Your task to perform on an android device: View the shopping cart on amazon. Add logitech g903 to the cart on amazon, then select checkout. Image 0: 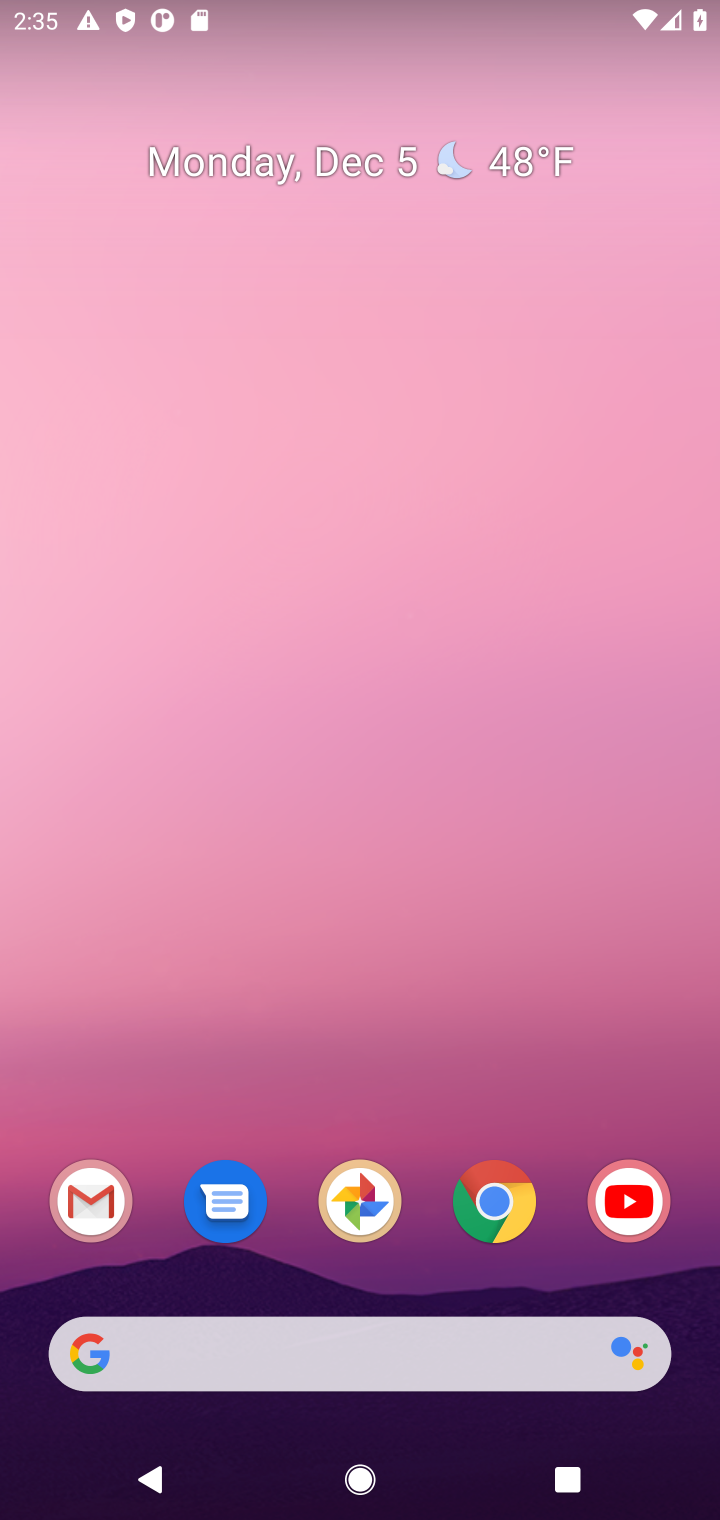
Step 0: click (492, 1198)
Your task to perform on an android device: View the shopping cart on amazon. Add logitech g903 to the cart on amazon, then select checkout. Image 1: 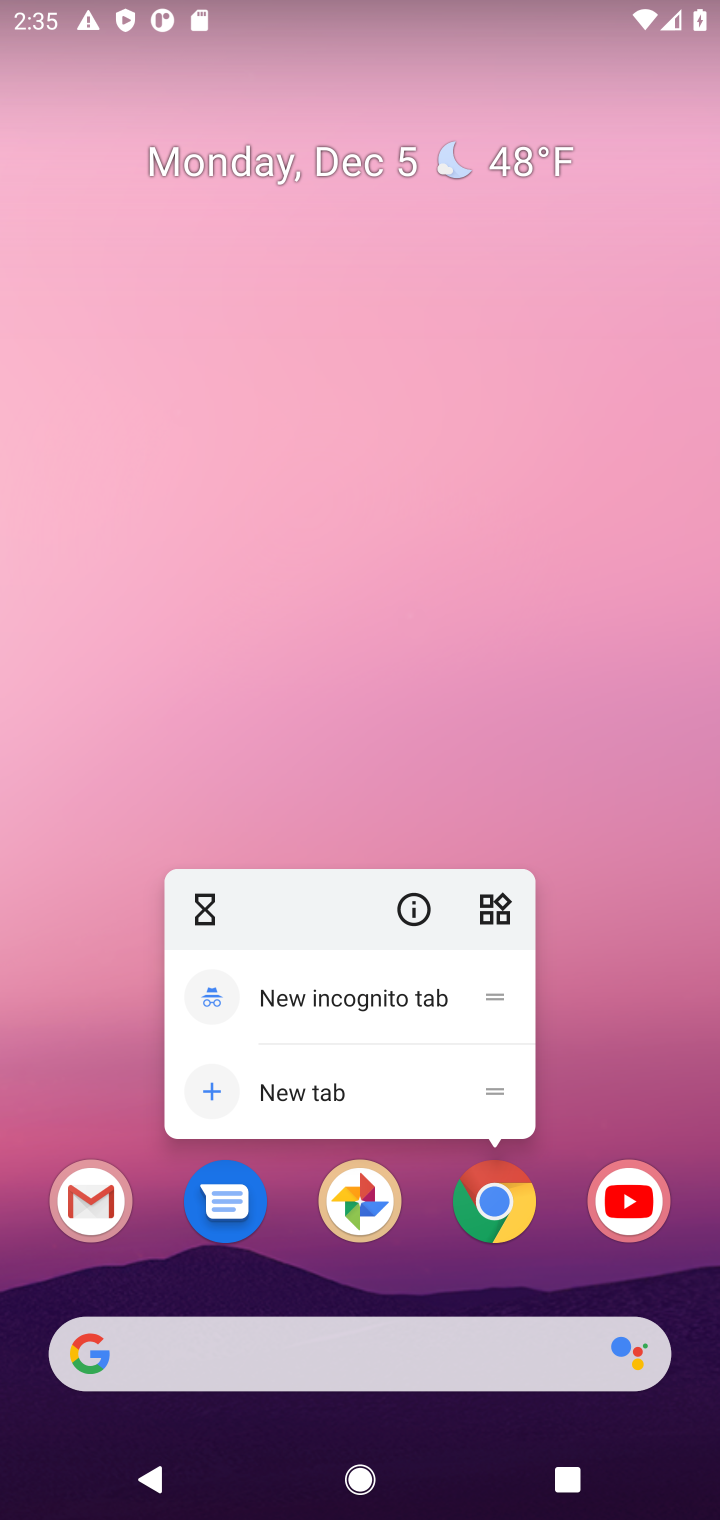
Step 1: click (482, 1218)
Your task to perform on an android device: View the shopping cart on amazon. Add logitech g903 to the cart on amazon, then select checkout. Image 2: 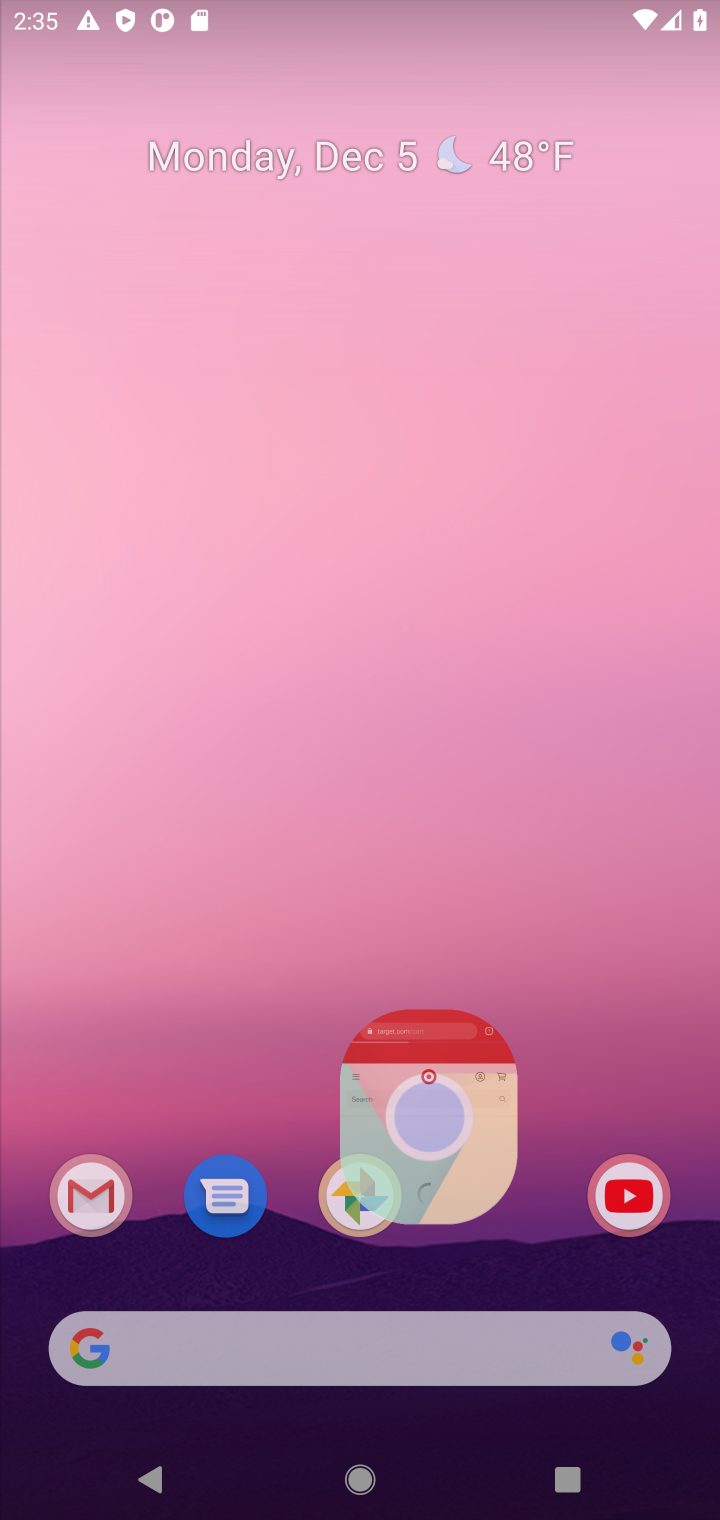
Step 2: click (482, 1218)
Your task to perform on an android device: View the shopping cart on amazon. Add logitech g903 to the cart on amazon, then select checkout. Image 3: 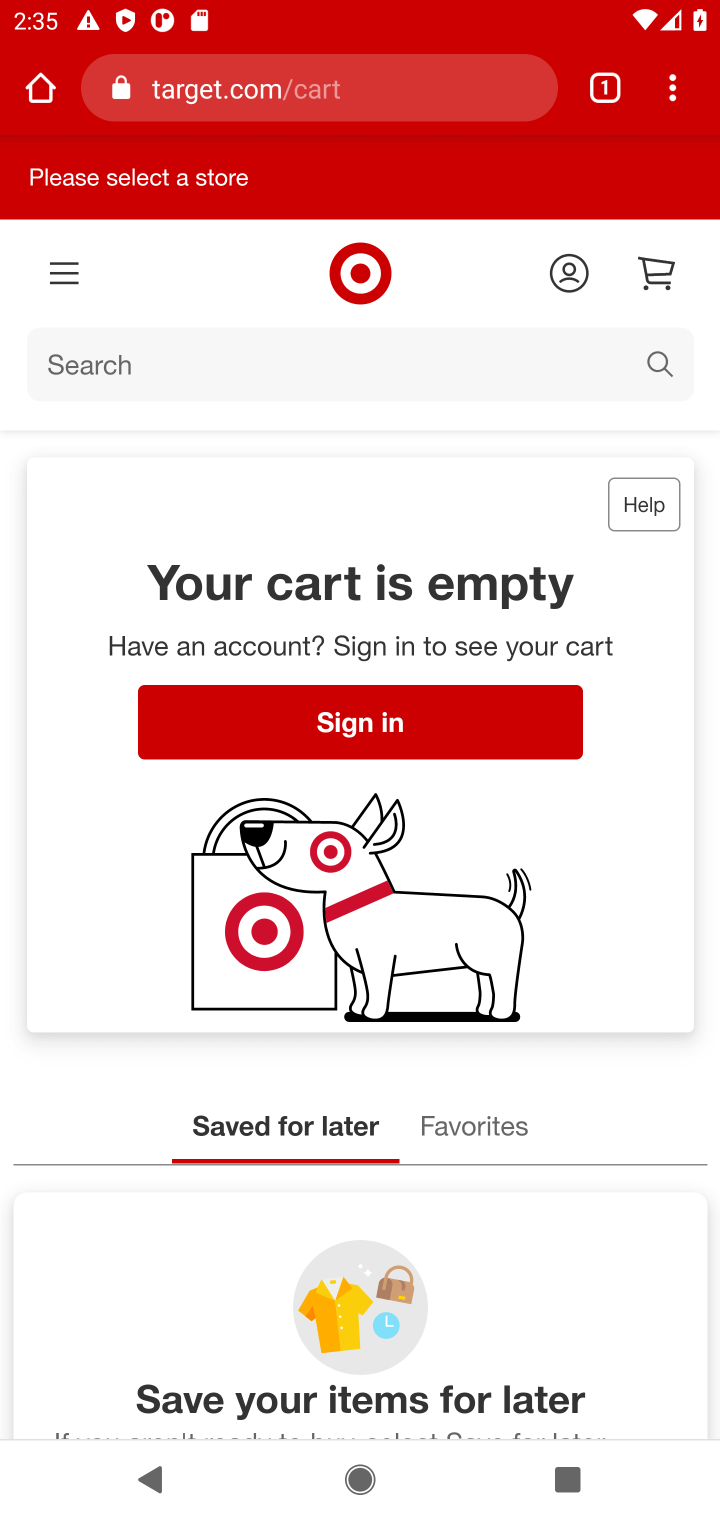
Step 3: click (342, 81)
Your task to perform on an android device: View the shopping cart on amazon. Add logitech g903 to the cart on amazon, then select checkout. Image 4: 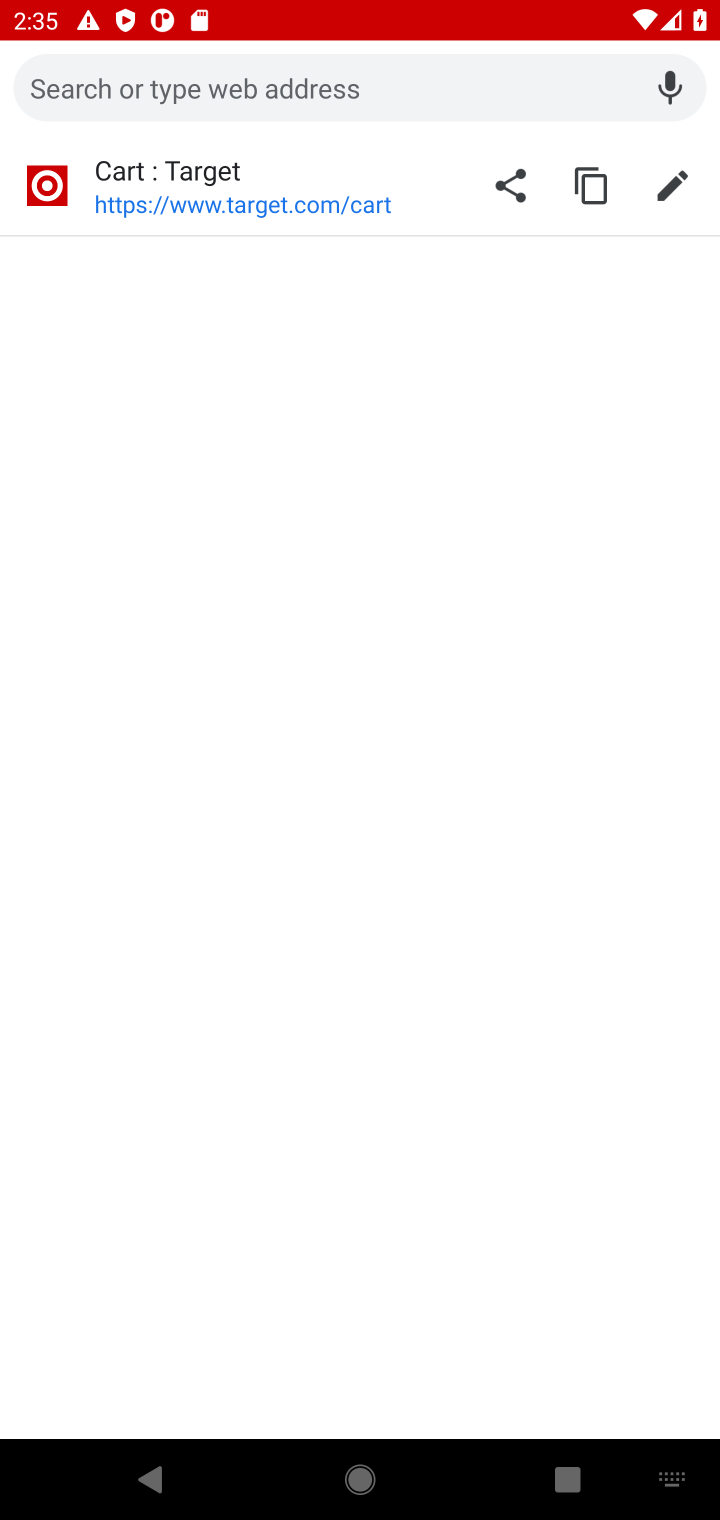
Step 4: type "amazon"
Your task to perform on an android device: View the shopping cart on amazon. Add logitech g903 to the cart on amazon, then select checkout. Image 5: 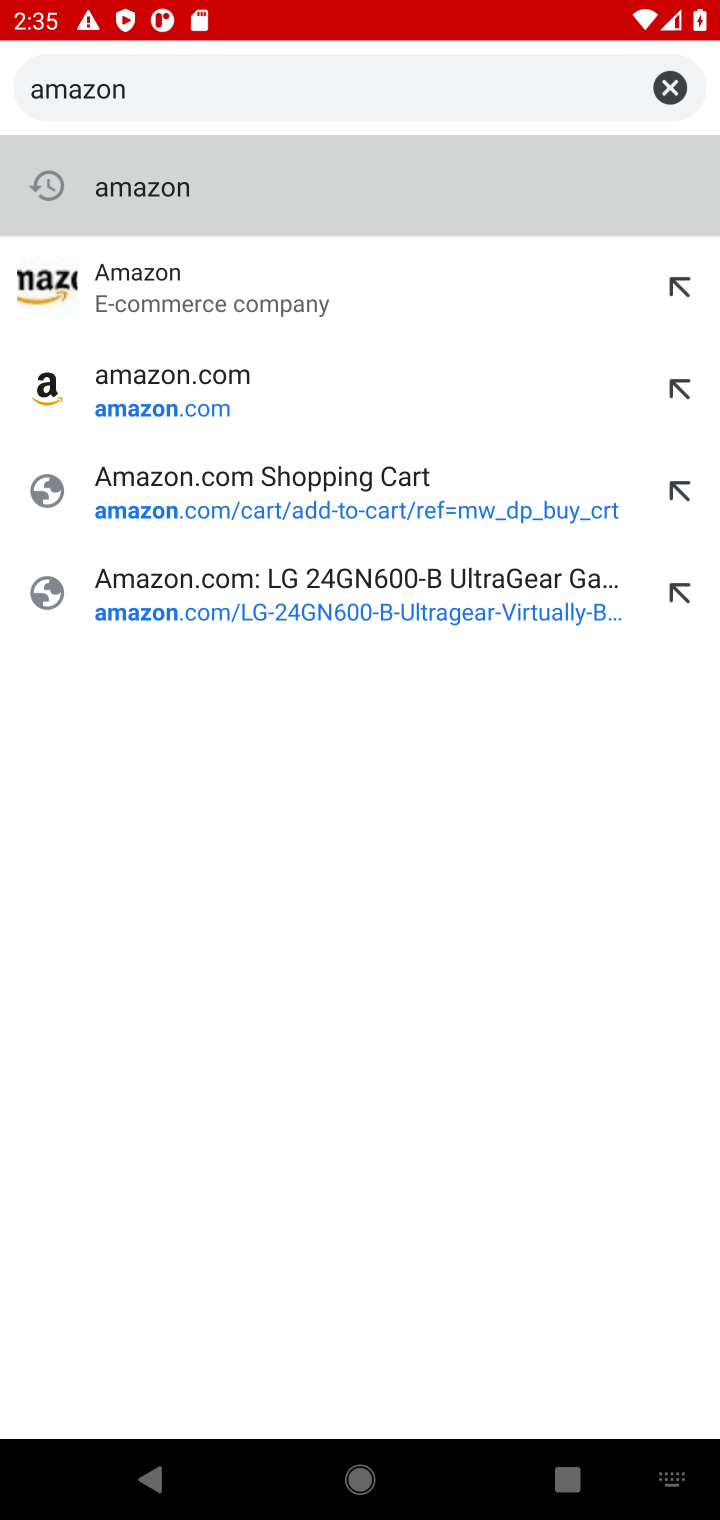
Step 5: click (151, 279)
Your task to perform on an android device: View the shopping cart on amazon. Add logitech g903 to the cart on amazon, then select checkout. Image 6: 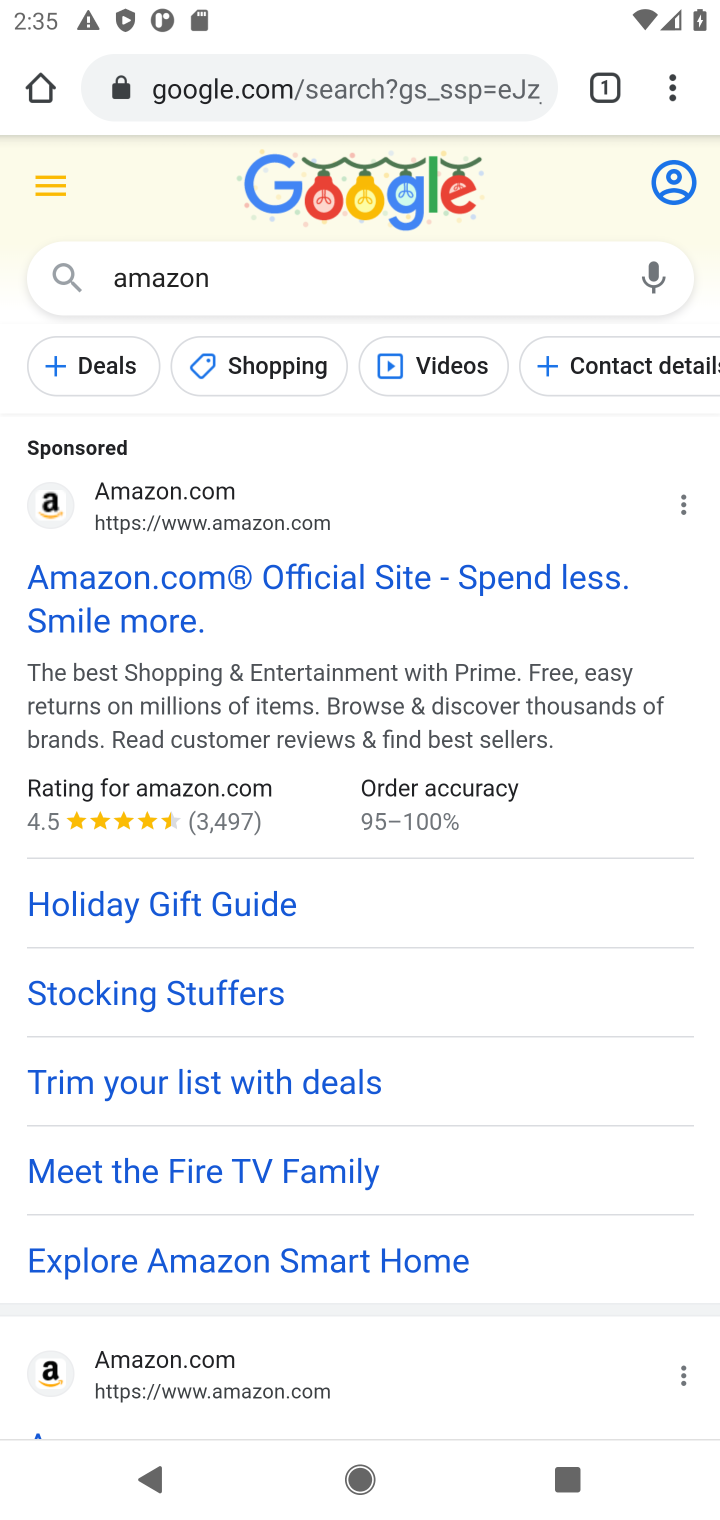
Step 6: click (243, 573)
Your task to perform on an android device: View the shopping cart on amazon. Add logitech g903 to the cart on amazon, then select checkout. Image 7: 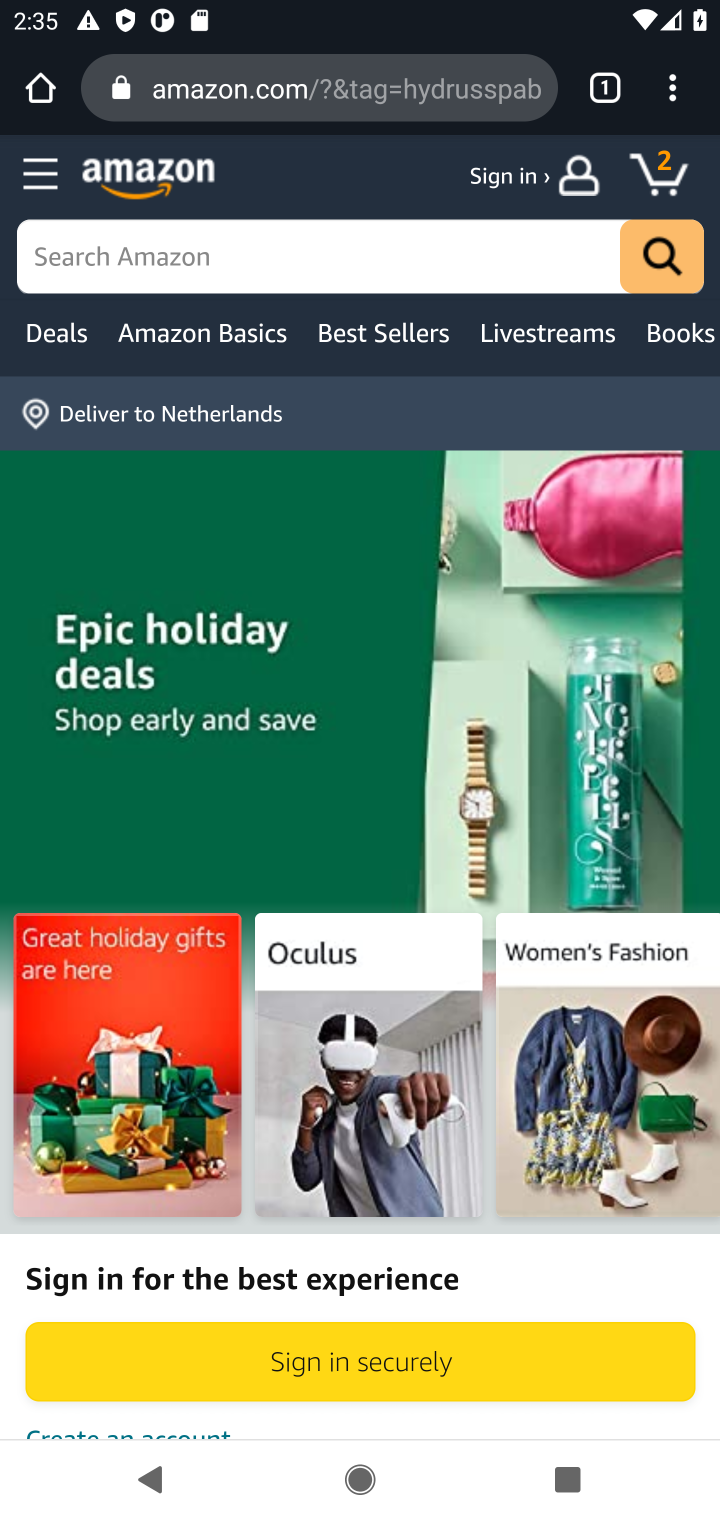
Step 7: click (518, 259)
Your task to perform on an android device: View the shopping cart on amazon. Add logitech g903 to the cart on amazon, then select checkout. Image 8: 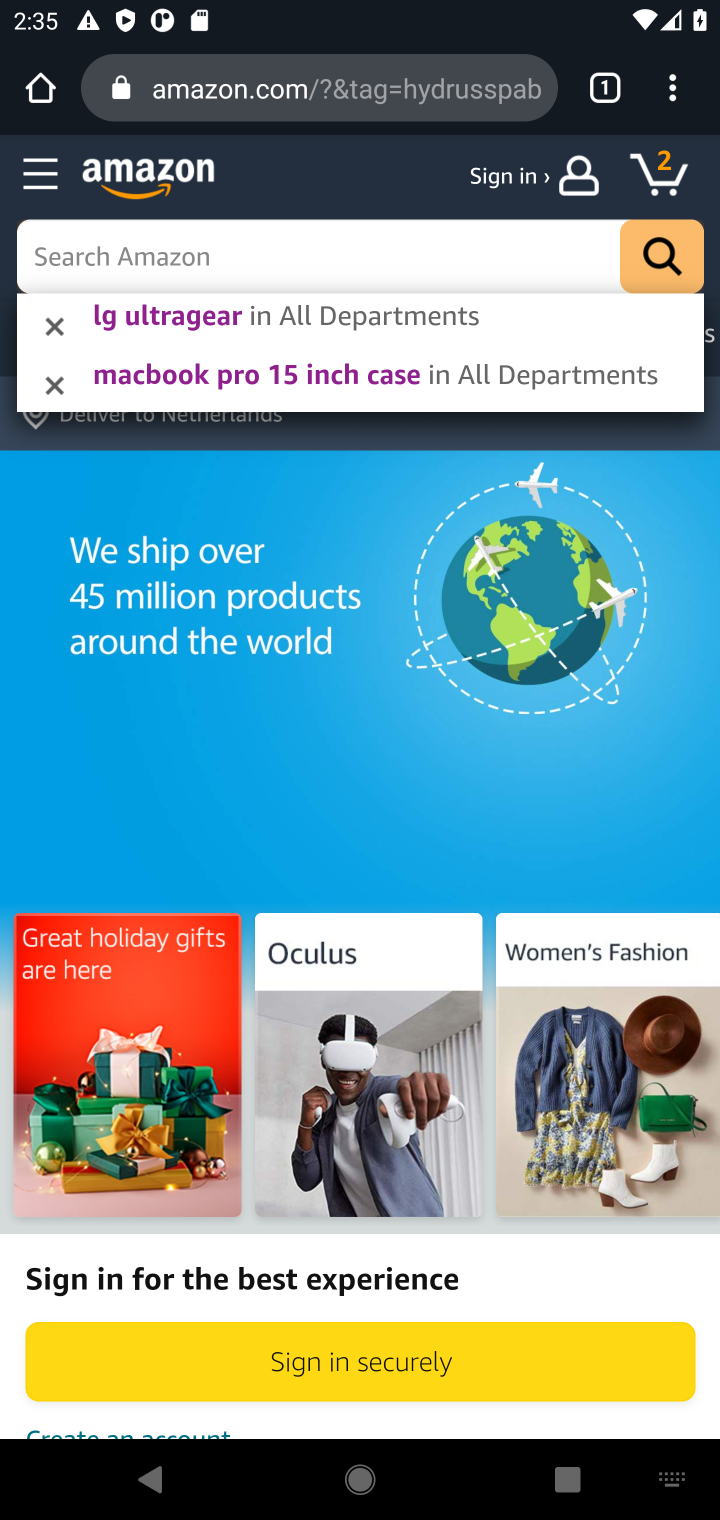
Step 8: type "logitech g903"
Your task to perform on an android device: View the shopping cart on amazon. Add logitech g903 to the cart on amazon, then select checkout. Image 9: 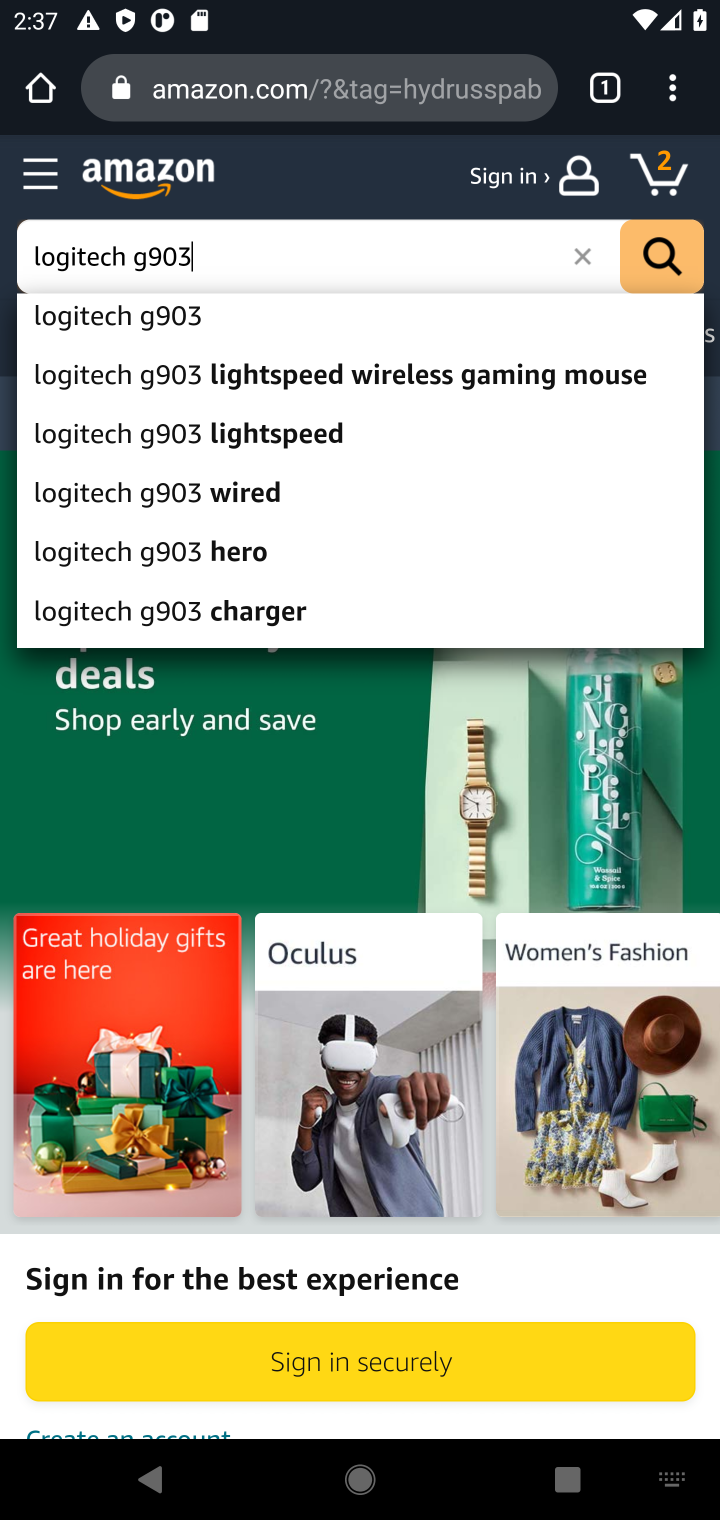
Step 9: click (171, 325)
Your task to perform on an android device: View the shopping cart on amazon. Add logitech g903 to the cart on amazon, then select checkout. Image 10: 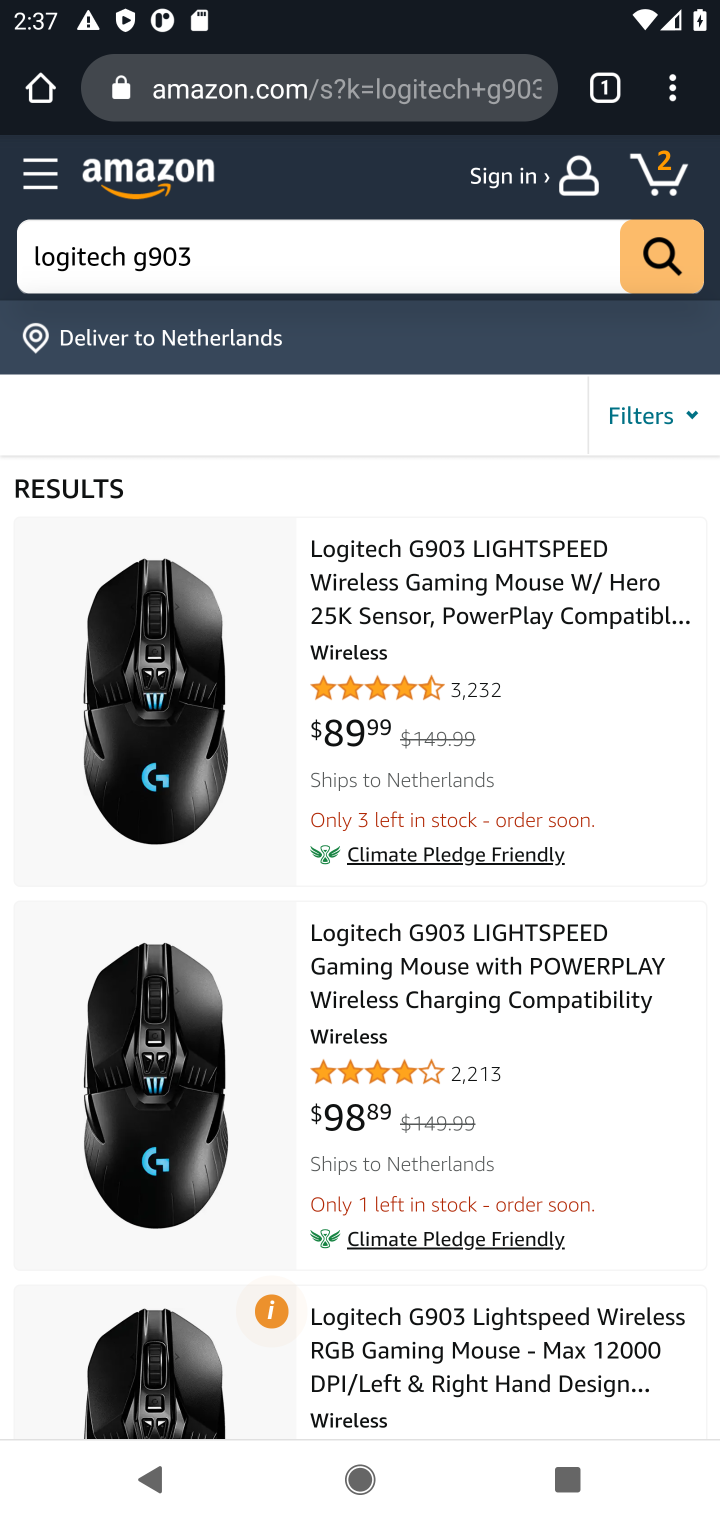
Step 10: click (148, 613)
Your task to perform on an android device: View the shopping cart on amazon. Add logitech g903 to the cart on amazon, then select checkout. Image 11: 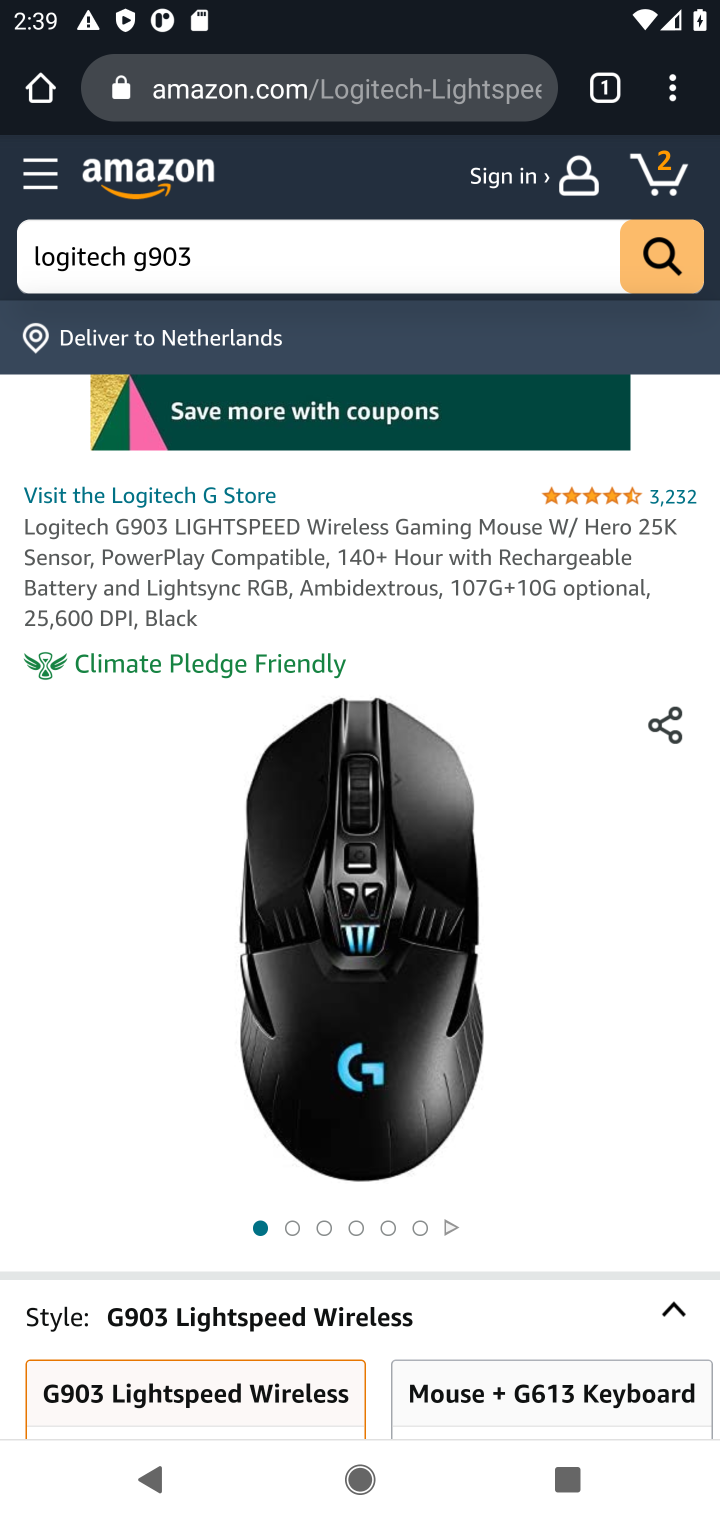
Step 11: drag from (478, 1254) to (377, 429)
Your task to perform on an android device: View the shopping cart on amazon. Add logitech g903 to the cart on amazon, then select checkout. Image 12: 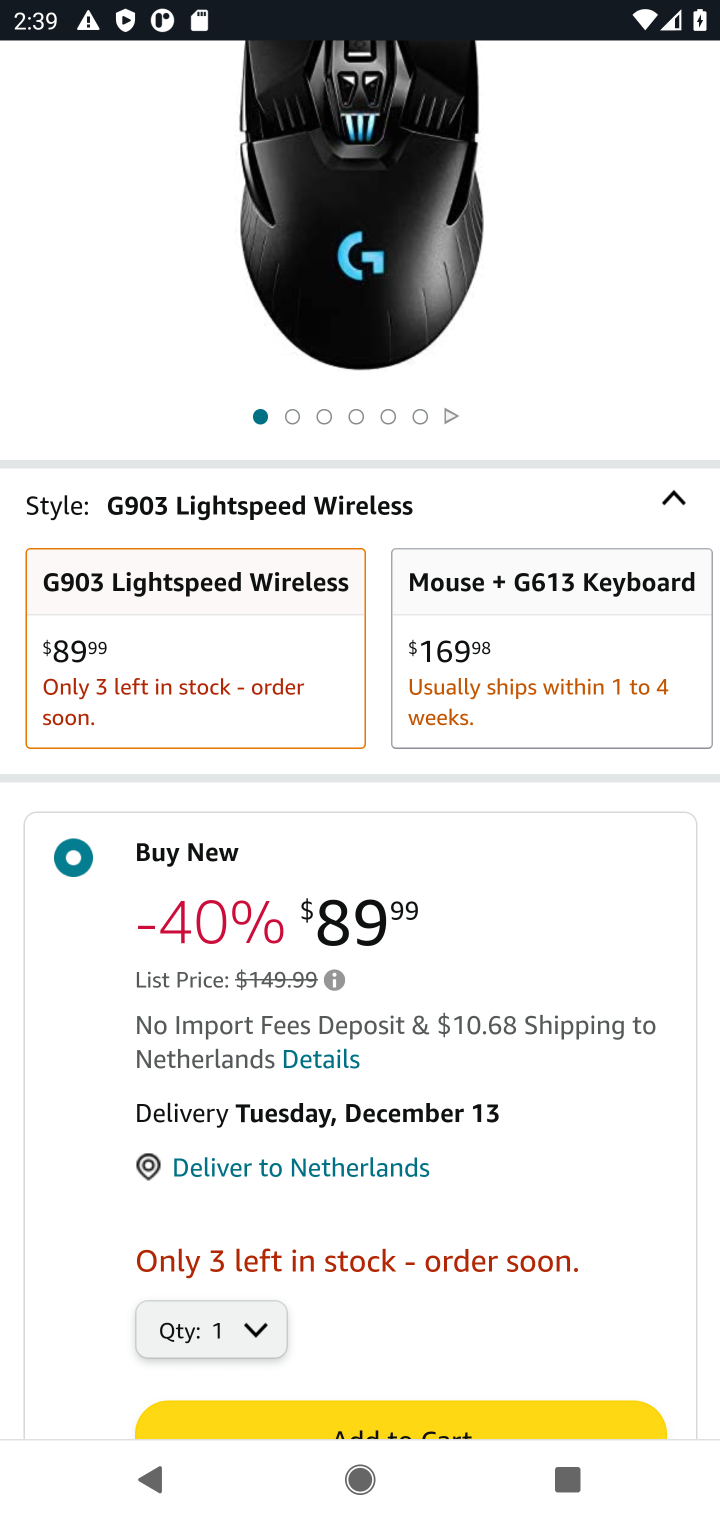
Step 12: drag from (479, 1320) to (433, 798)
Your task to perform on an android device: View the shopping cart on amazon. Add logitech g903 to the cart on amazon, then select checkout. Image 13: 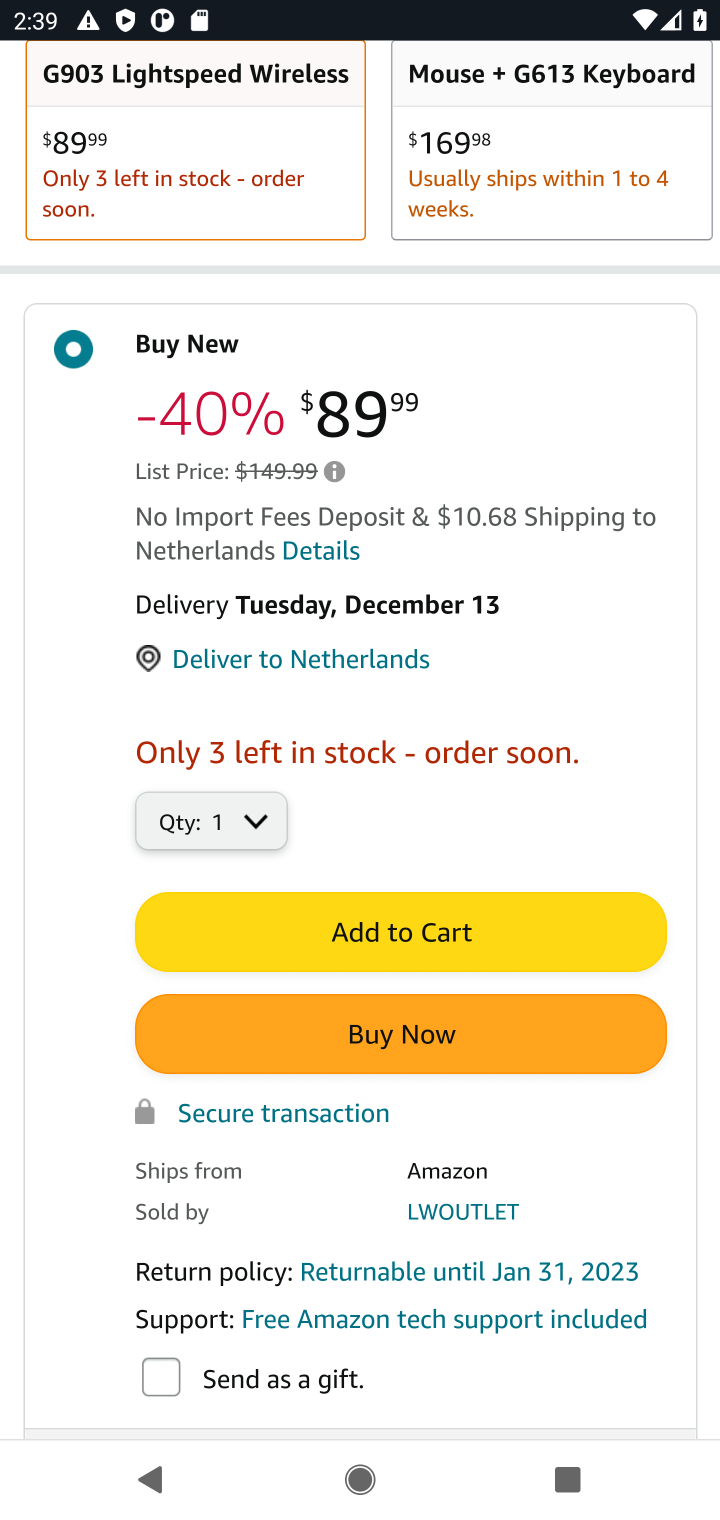
Step 13: click (404, 1071)
Your task to perform on an android device: View the shopping cart on amazon. Add logitech g903 to the cart on amazon, then select checkout. Image 14: 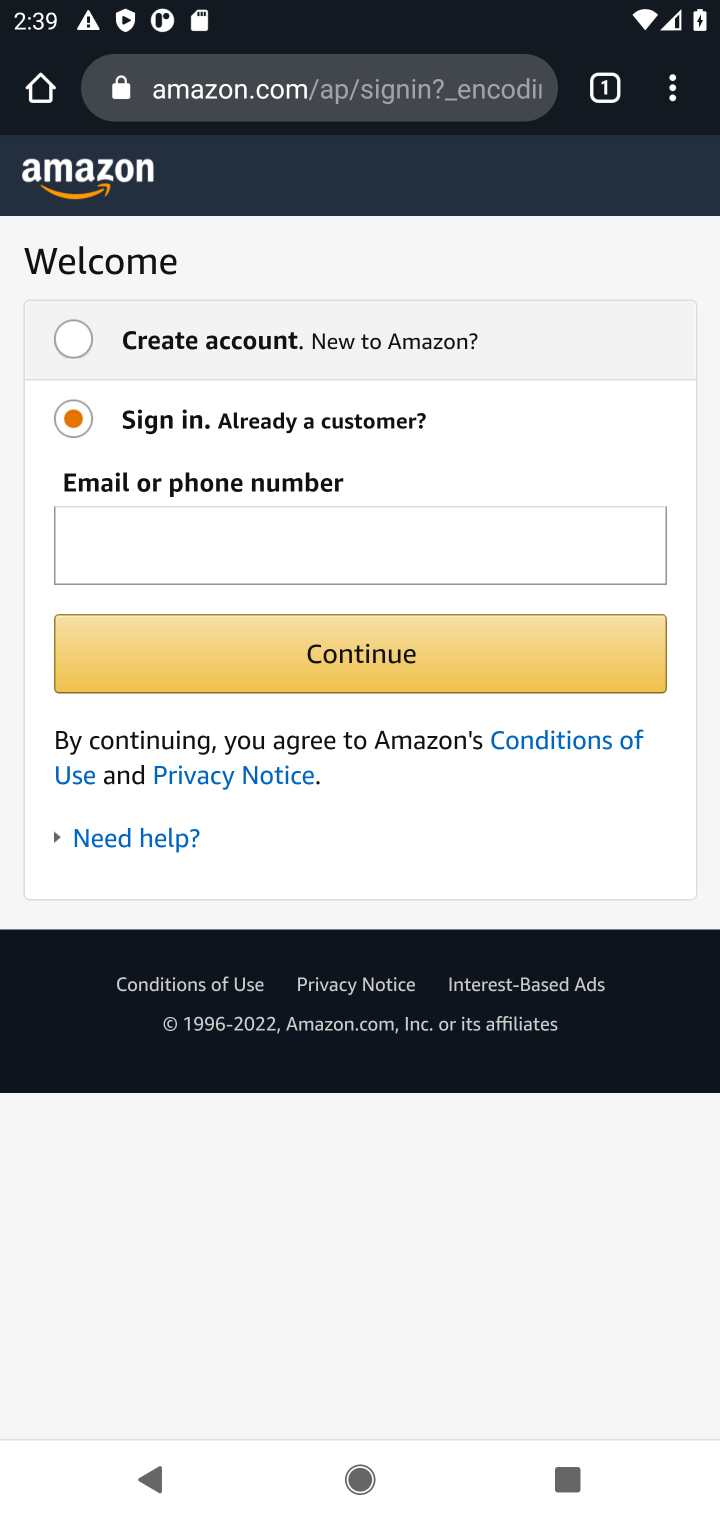
Step 14: task complete